Your task to perform on an android device: turn notification dots off Image 0: 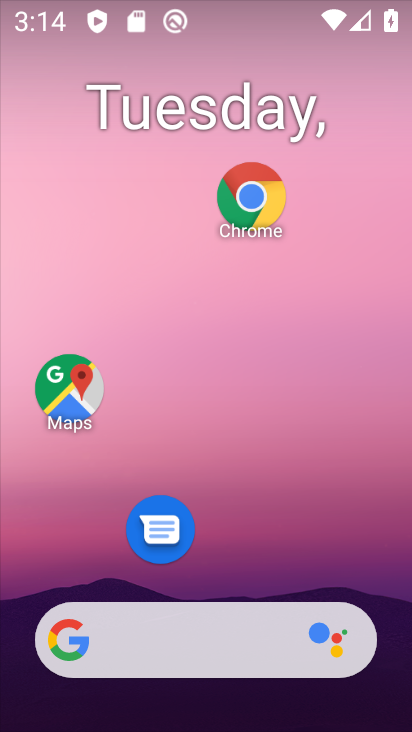
Step 0: drag from (246, 526) to (270, 254)
Your task to perform on an android device: turn notification dots off Image 1: 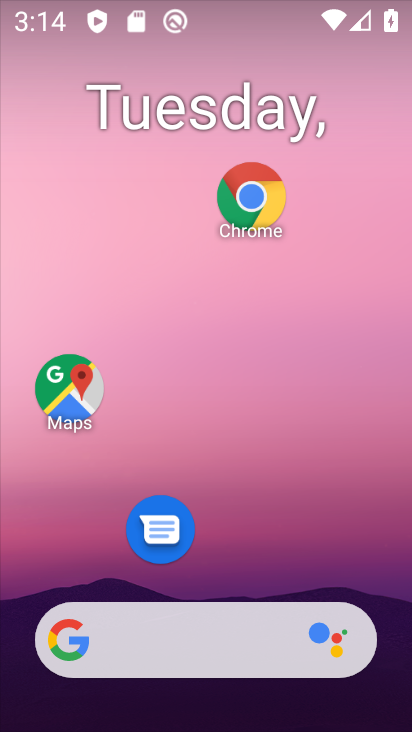
Step 1: drag from (252, 607) to (256, 228)
Your task to perform on an android device: turn notification dots off Image 2: 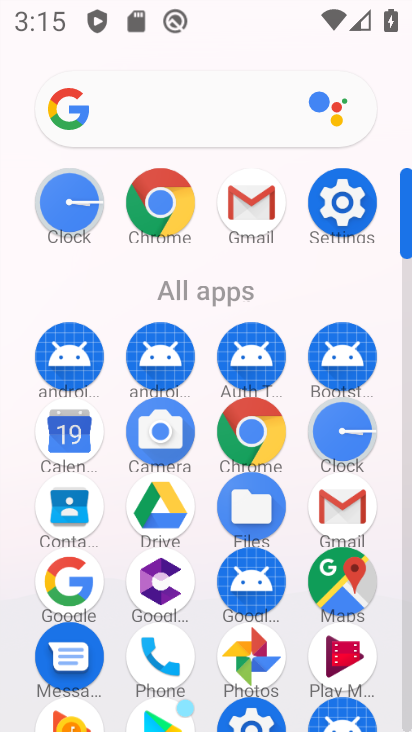
Step 2: click (334, 210)
Your task to perform on an android device: turn notification dots off Image 3: 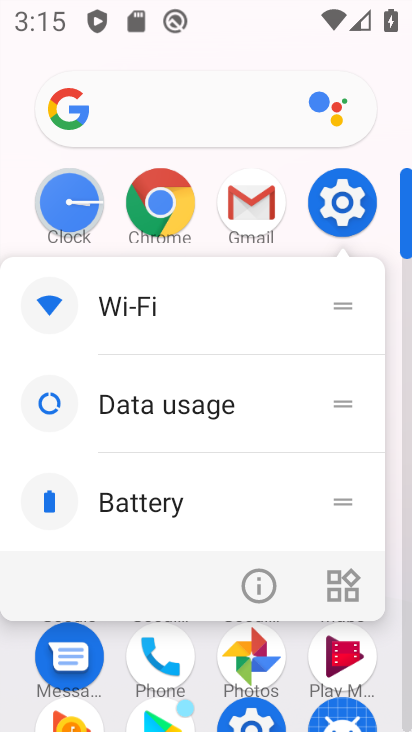
Step 3: click (337, 203)
Your task to perform on an android device: turn notification dots off Image 4: 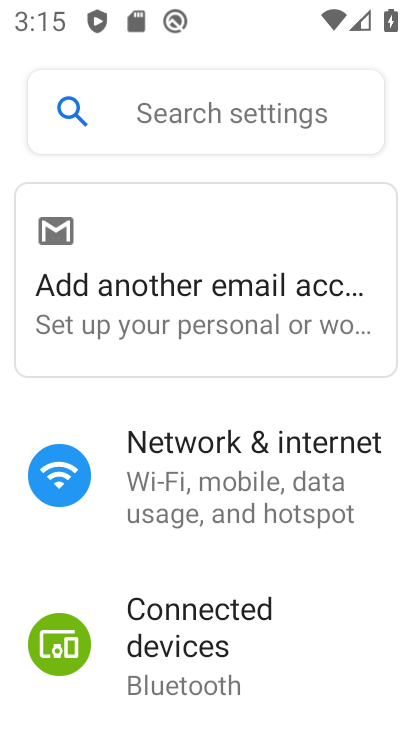
Step 4: drag from (232, 691) to (237, 317)
Your task to perform on an android device: turn notification dots off Image 5: 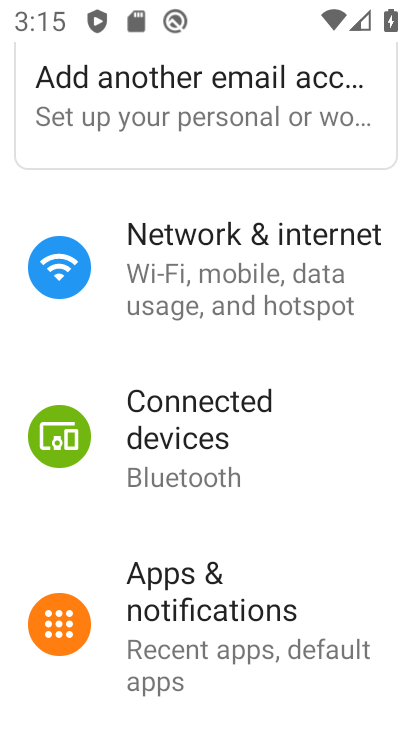
Step 5: drag from (224, 635) to (209, 342)
Your task to perform on an android device: turn notification dots off Image 6: 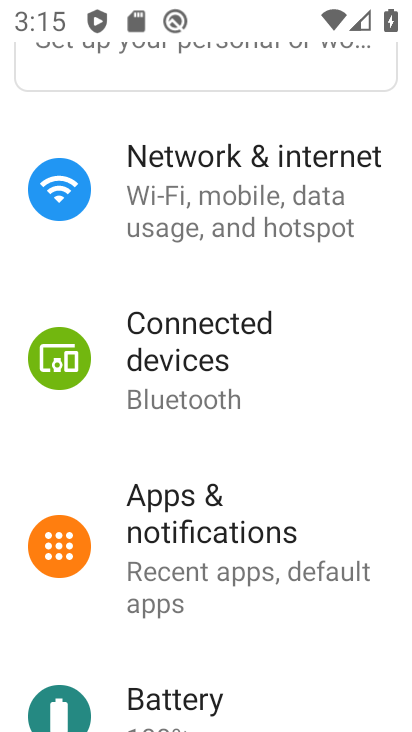
Step 6: click (184, 532)
Your task to perform on an android device: turn notification dots off Image 7: 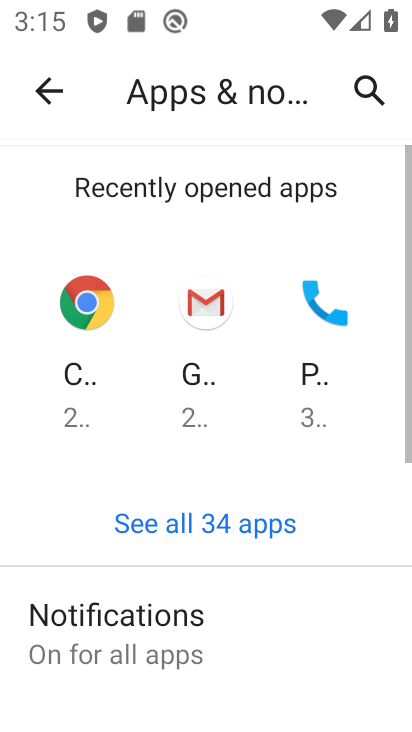
Step 7: drag from (165, 667) to (165, 361)
Your task to perform on an android device: turn notification dots off Image 8: 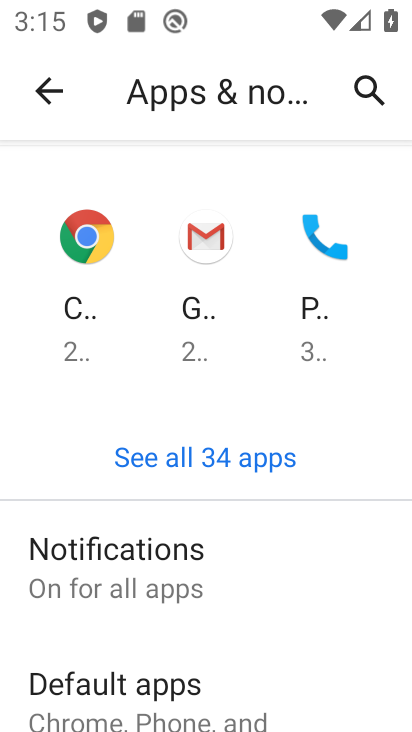
Step 8: drag from (133, 675) to (122, 437)
Your task to perform on an android device: turn notification dots off Image 9: 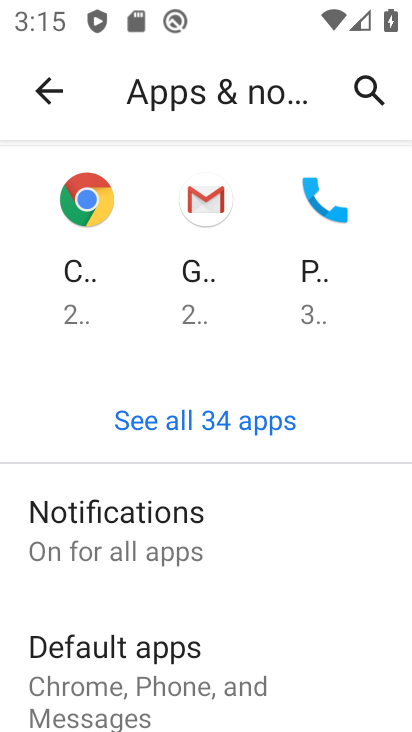
Step 9: click (142, 514)
Your task to perform on an android device: turn notification dots off Image 10: 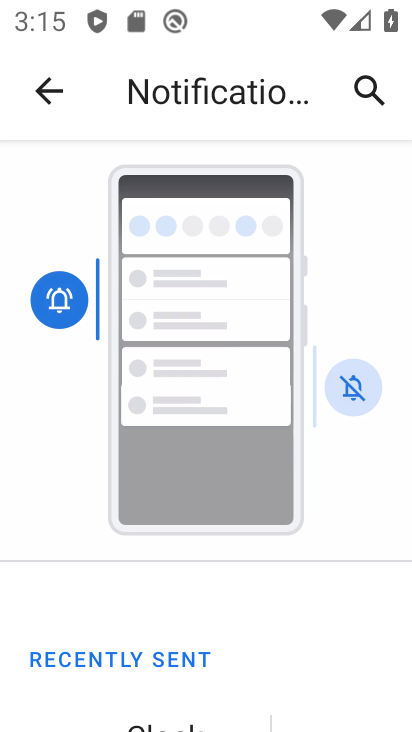
Step 10: drag from (169, 693) to (128, 376)
Your task to perform on an android device: turn notification dots off Image 11: 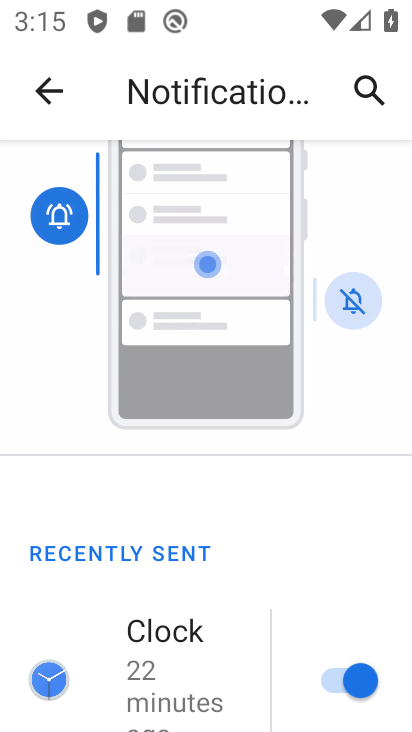
Step 11: drag from (134, 645) to (107, 321)
Your task to perform on an android device: turn notification dots off Image 12: 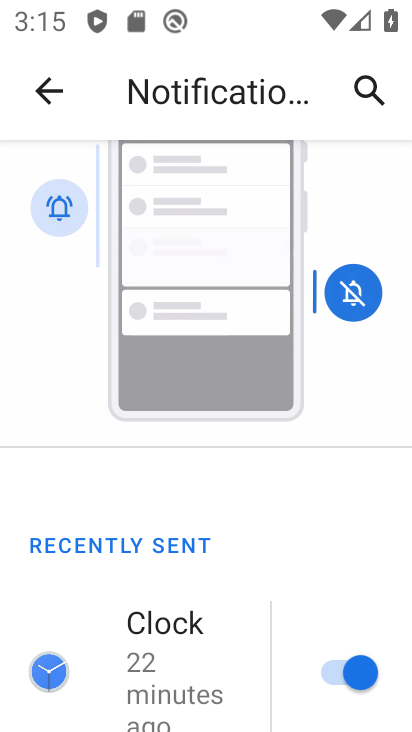
Step 12: drag from (159, 716) to (164, 372)
Your task to perform on an android device: turn notification dots off Image 13: 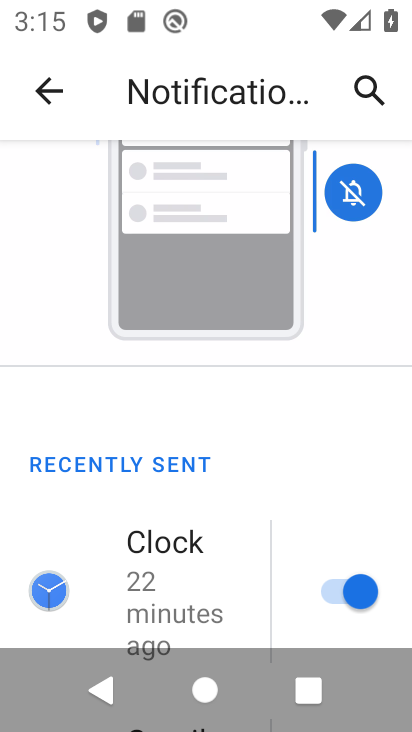
Step 13: drag from (250, 645) to (265, 348)
Your task to perform on an android device: turn notification dots off Image 14: 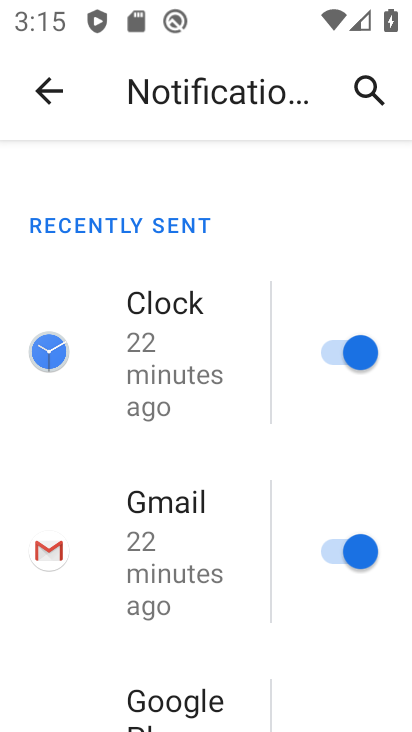
Step 14: drag from (247, 690) to (261, 293)
Your task to perform on an android device: turn notification dots off Image 15: 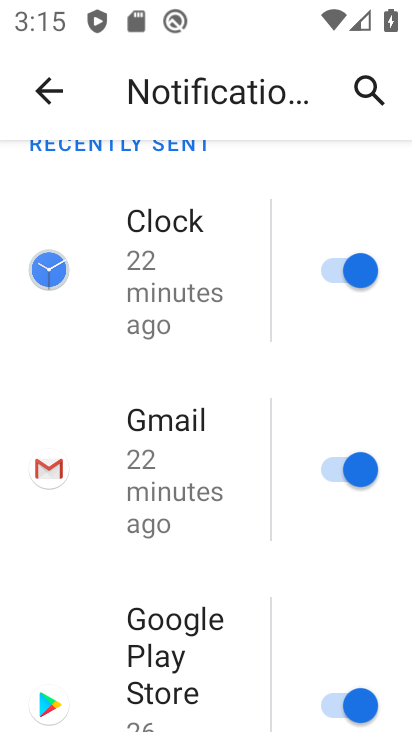
Step 15: drag from (243, 700) to (246, 321)
Your task to perform on an android device: turn notification dots off Image 16: 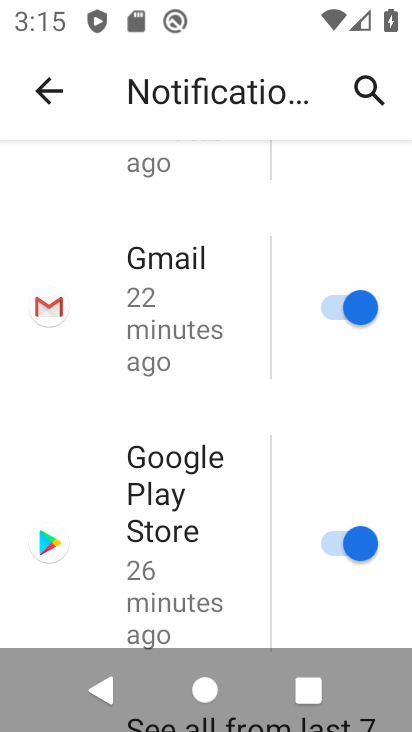
Step 16: drag from (238, 597) to (240, 307)
Your task to perform on an android device: turn notification dots off Image 17: 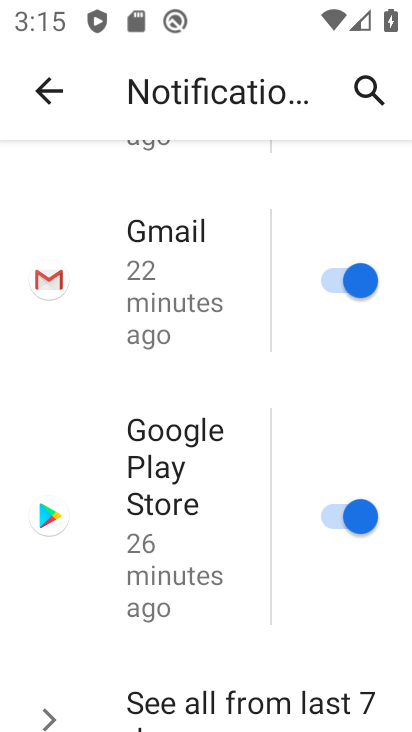
Step 17: drag from (277, 627) to (266, 234)
Your task to perform on an android device: turn notification dots off Image 18: 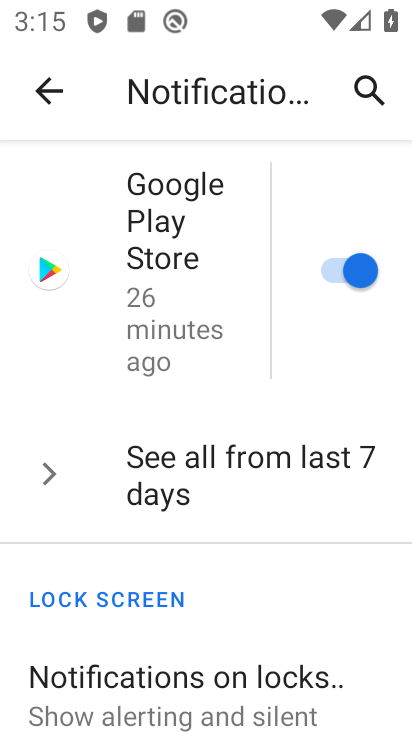
Step 18: drag from (235, 639) to (215, 310)
Your task to perform on an android device: turn notification dots off Image 19: 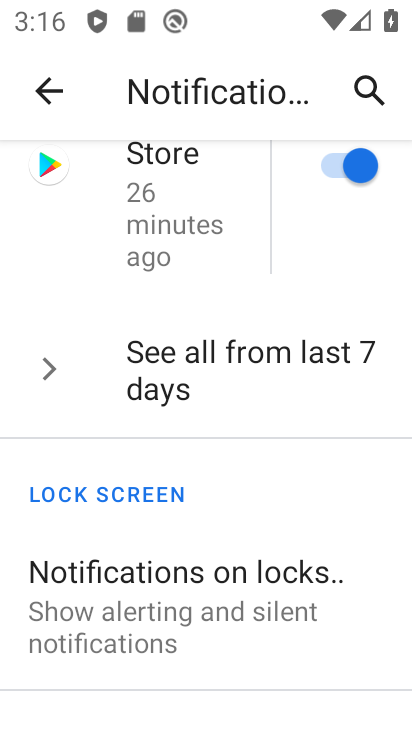
Step 19: drag from (193, 642) to (193, 318)
Your task to perform on an android device: turn notification dots off Image 20: 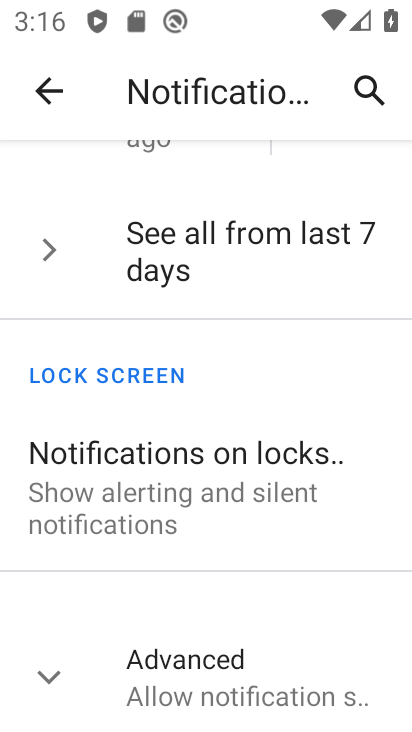
Step 20: drag from (186, 602) to (152, 299)
Your task to perform on an android device: turn notification dots off Image 21: 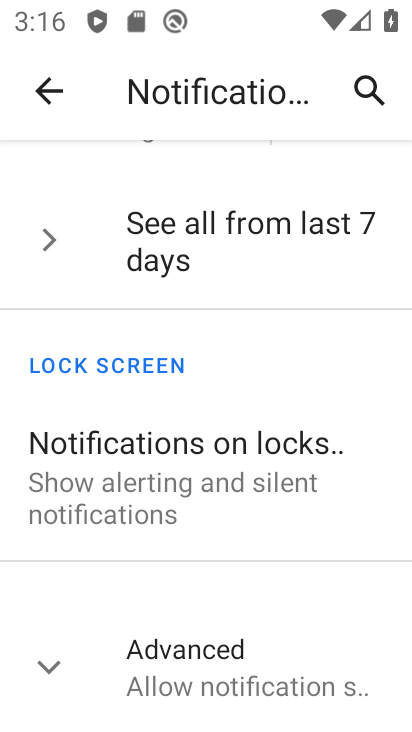
Step 21: click (196, 668)
Your task to perform on an android device: turn notification dots off Image 22: 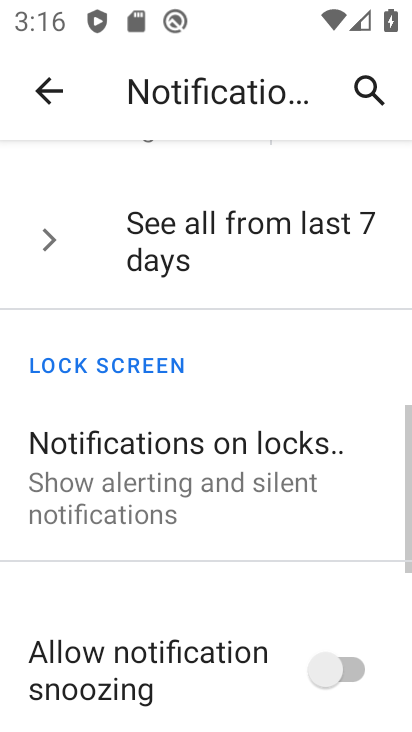
Step 22: drag from (195, 679) to (189, 403)
Your task to perform on an android device: turn notification dots off Image 23: 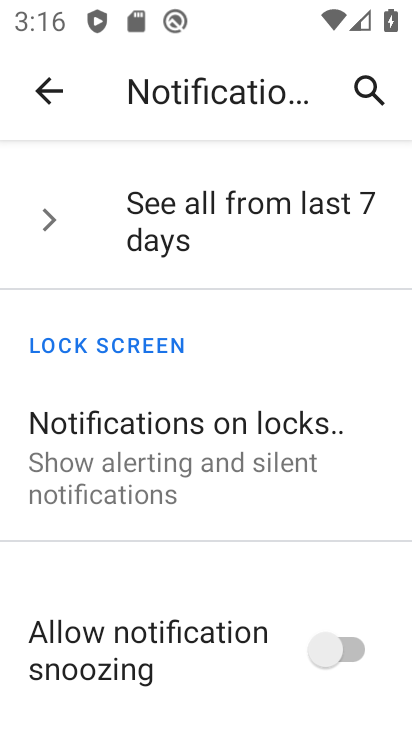
Step 23: drag from (176, 671) to (165, 397)
Your task to perform on an android device: turn notification dots off Image 24: 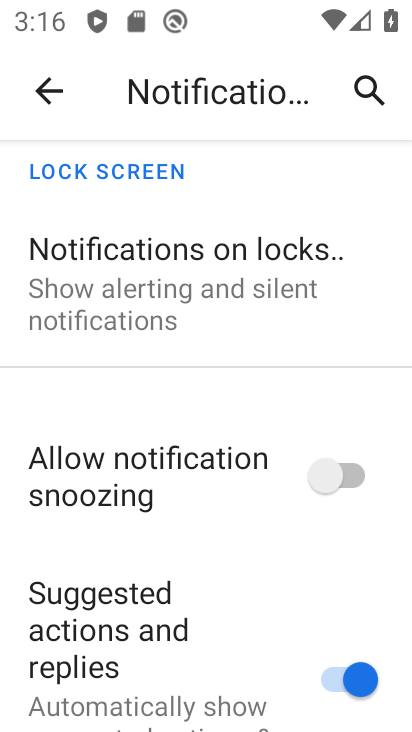
Step 24: drag from (148, 690) to (146, 346)
Your task to perform on an android device: turn notification dots off Image 25: 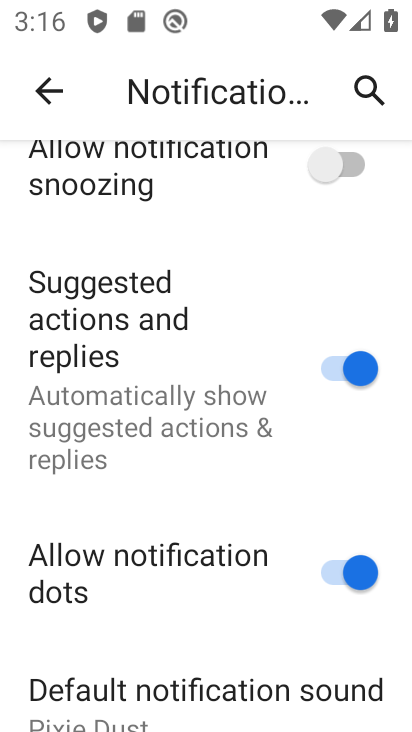
Step 25: drag from (165, 728) to (165, 408)
Your task to perform on an android device: turn notification dots off Image 26: 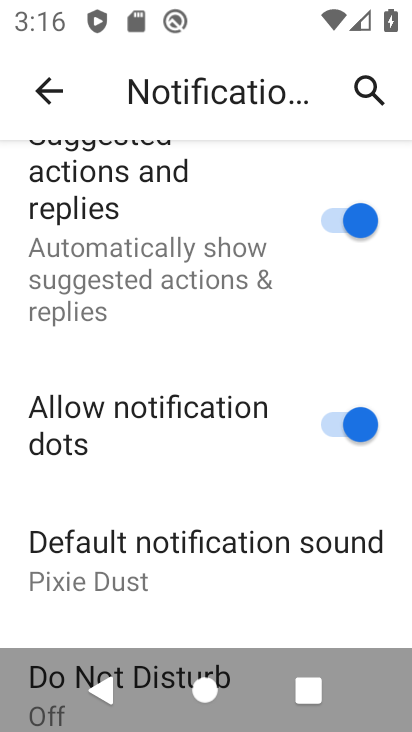
Step 26: drag from (179, 595) to (168, 377)
Your task to perform on an android device: turn notification dots off Image 27: 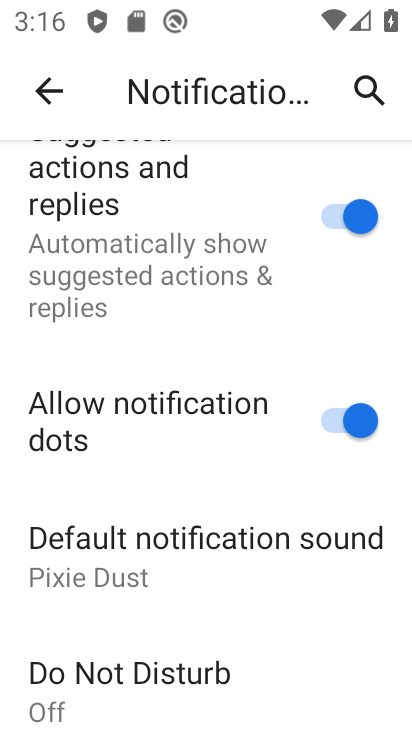
Step 27: click (339, 413)
Your task to perform on an android device: turn notification dots off Image 28: 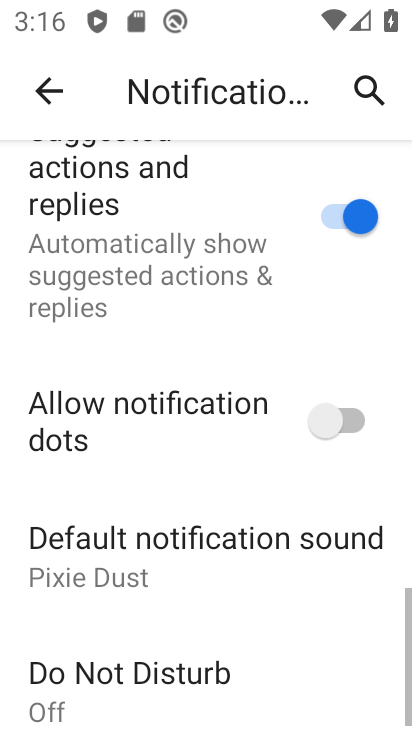
Step 28: task complete